Your task to perform on an android device: set default search engine in the chrome app Image 0: 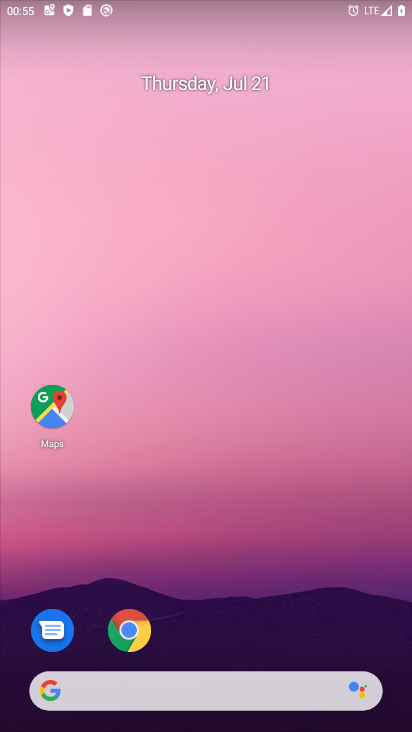
Step 0: click (130, 649)
Your task to perform on an android device: set default search engine in the chrome app Image 1: 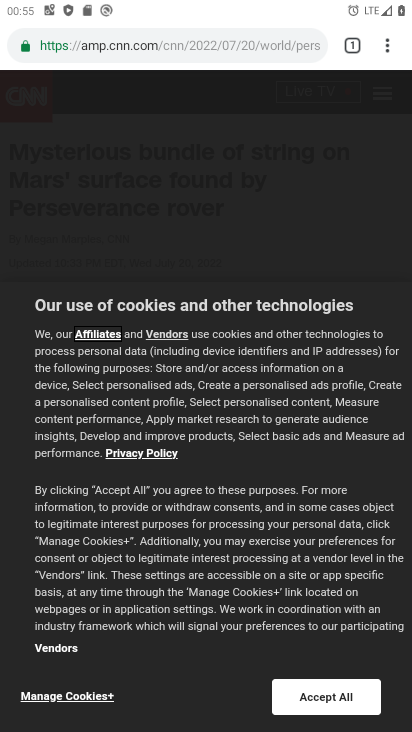
Step 1: click (387, 61)
Your task to perform on an android device: set default search engine in the chrome app Image 2: 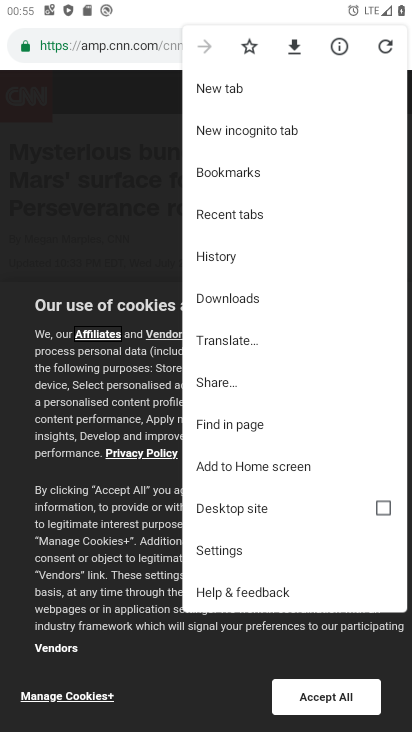
Step 2: click (240, 554)
Your task to perform on an android device: set default search engine in the chrome app Image 3: 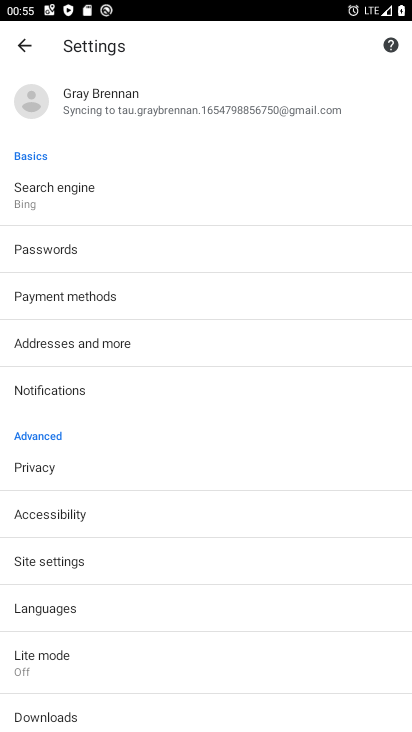
Step 3: click (102, 214)
Your task to perform on an android device: set default search engine in the chrome app Image 4: 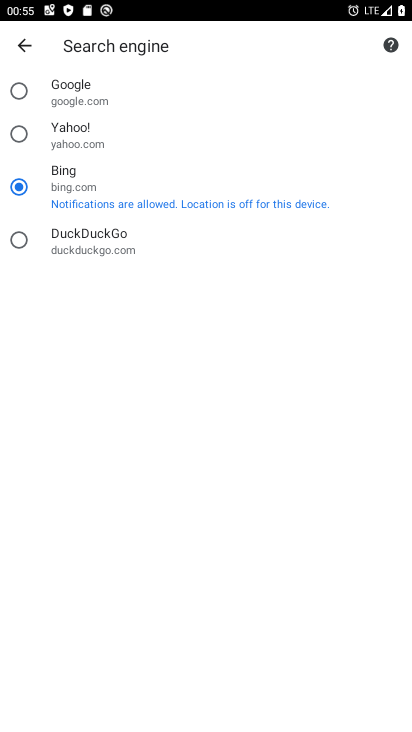
Step 4: click (92, 248)
Your task to perform on an android device: set default search engine in the chrome app Image 5: 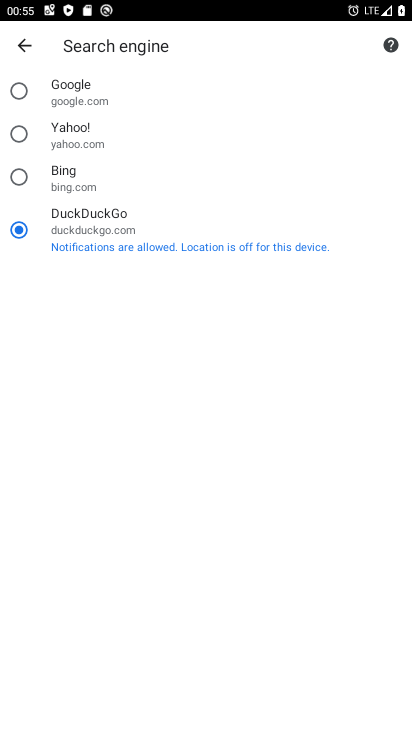
Step 5: task complete